Your task to perform on an android device: check android version Image 0: 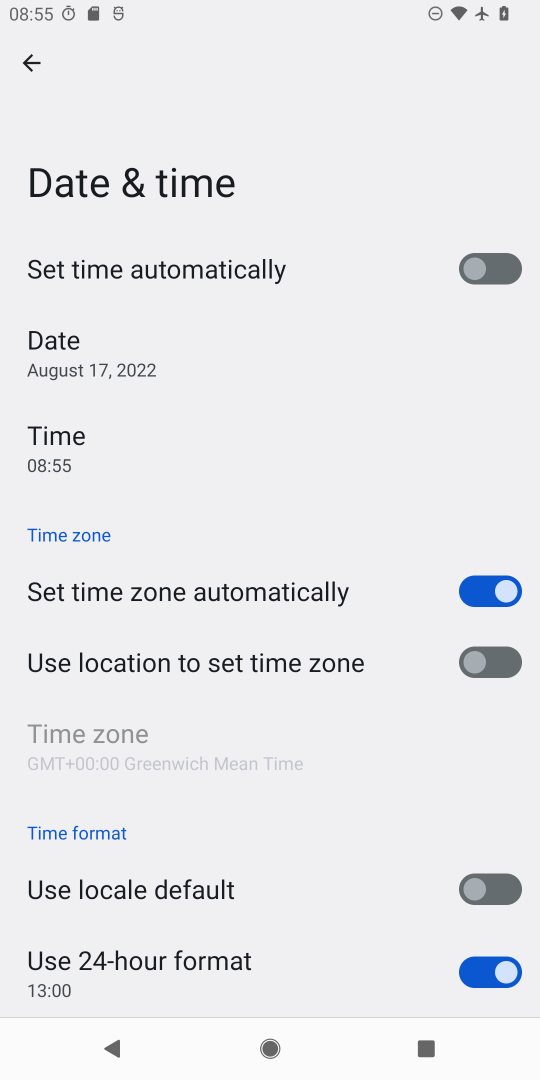
Step 0: click (33, 67)
Your task to perform on an android device: check android version Image 1: 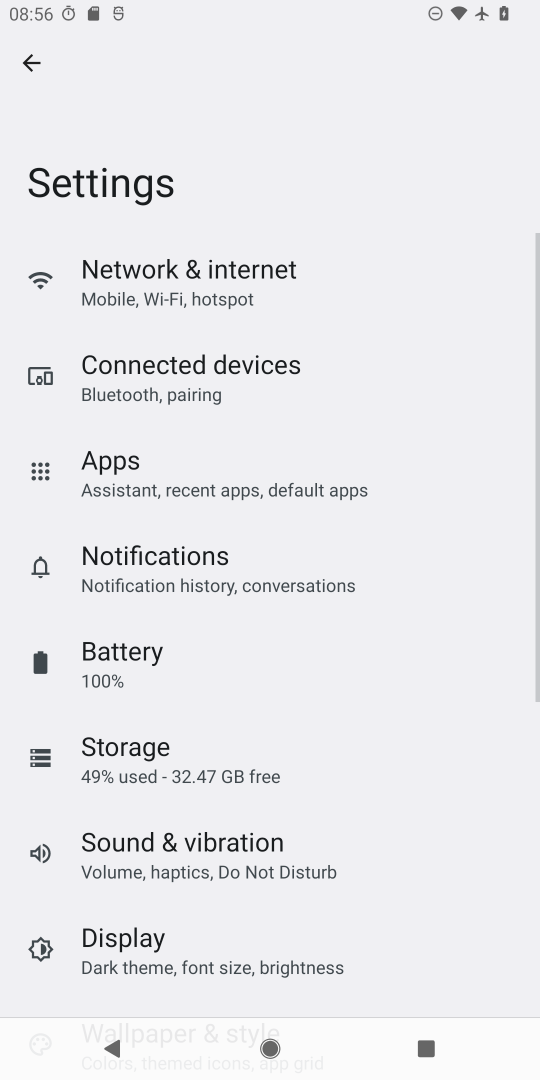
Step 1: drag from (213, 953) to (296, 174)
Your task to perform on an android device: check android version Image 2: 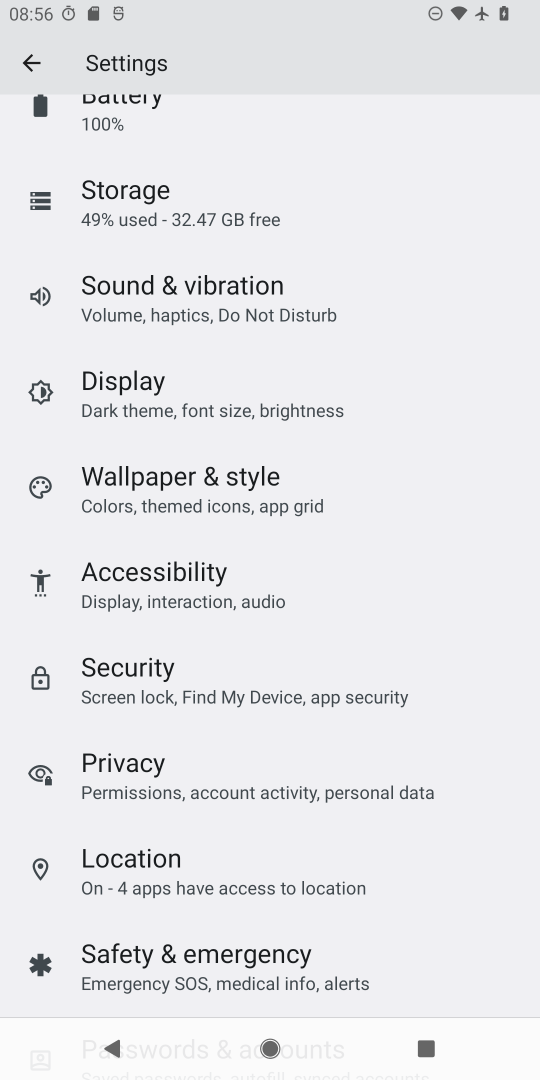
Step 2: drag from (207, 931) to (355, 252)
Your task to perform on an android device: check android version Image 3: 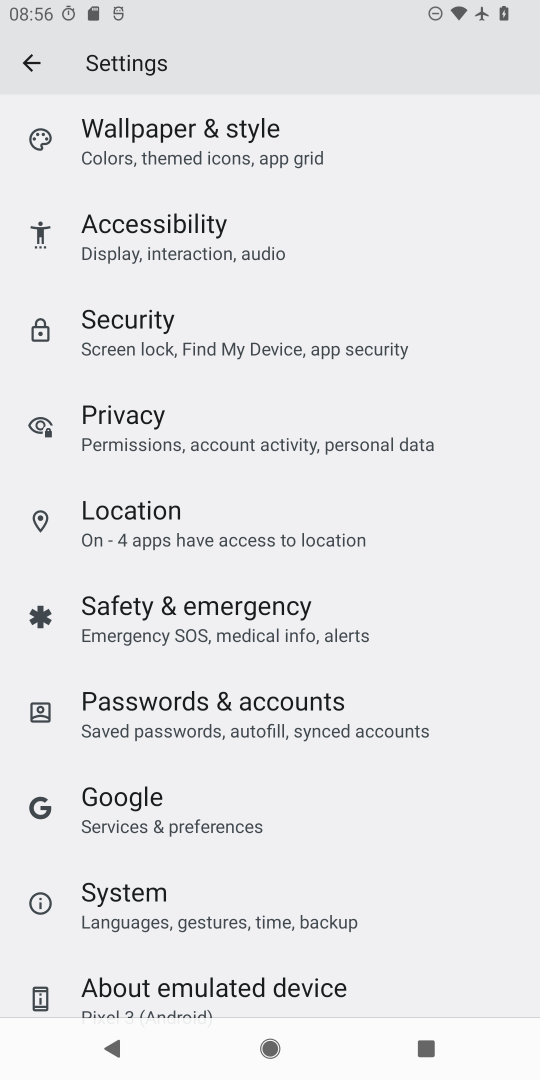
Step 3: click (191, 975)
Your task to perform on an android device: check android version Image 4: 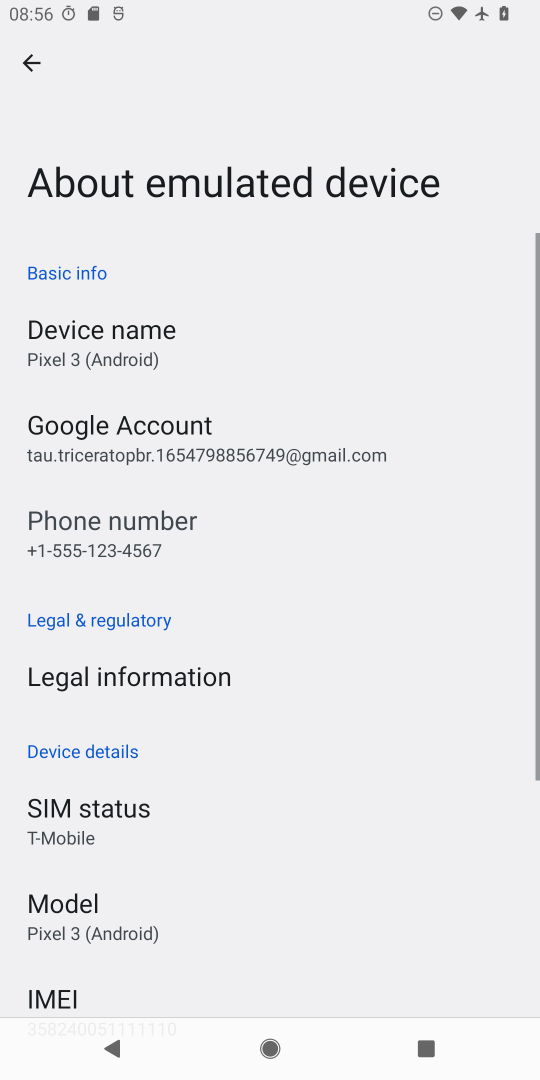
Step 4: drag from (107, 849) to (260, 294)
Your task to perform on an android device: check android version Image 5: 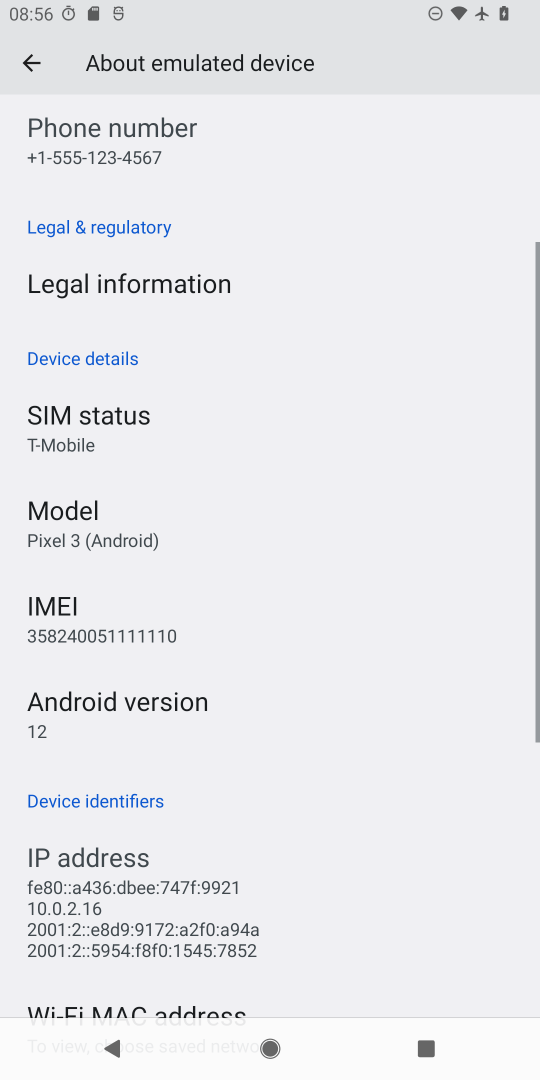
Step 5: click (97, 727)
Your task to perform on an android device: check android version Image 6: 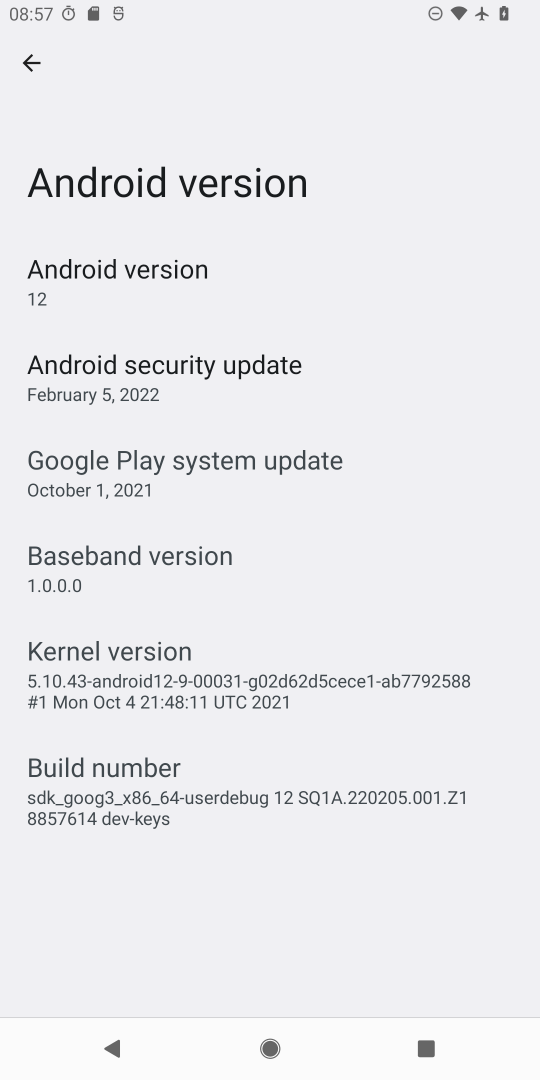
Step 6: task complete